Your task to perform on an android device: toggle airplane mode Image 0: 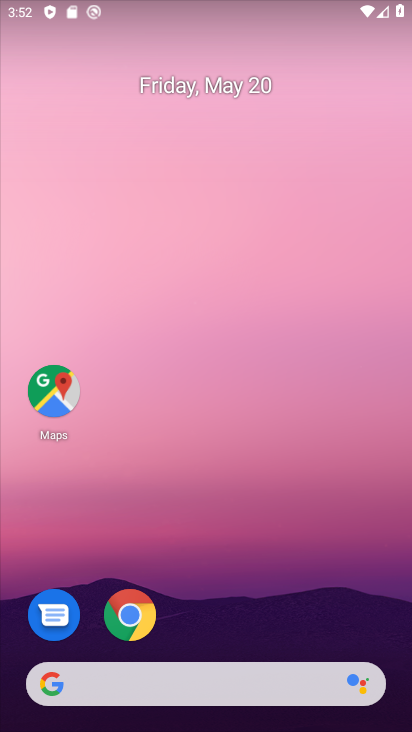
Step 0: drag from (267, 645) to (356, 132)
Your task to perform on an android device: toggle airplane mode Image 1: 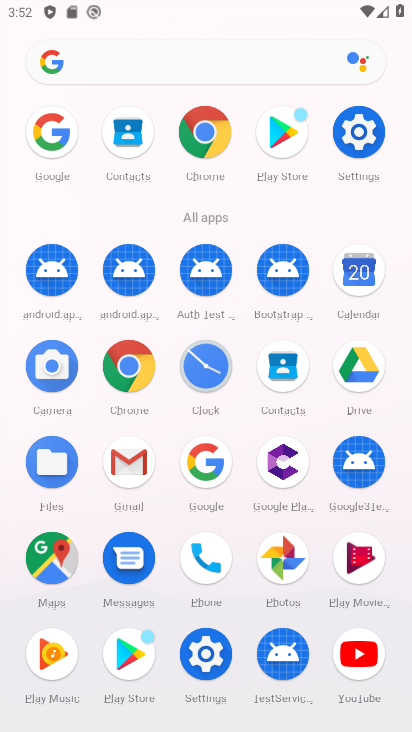
Step 1: click (367, 135)
Your task to perform on an android device: toggle airplane mode Image 2: 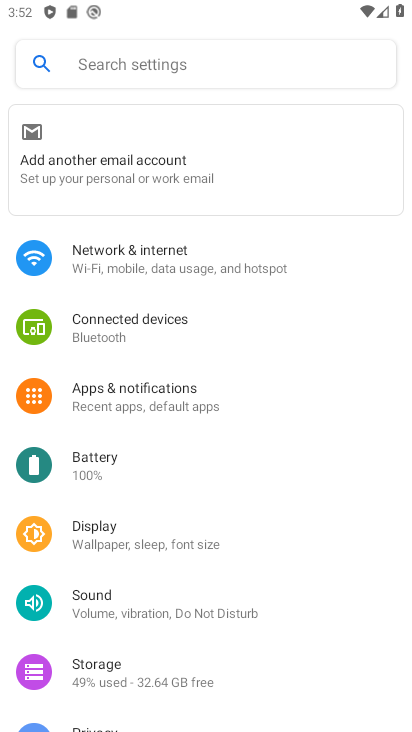
Step 2: click (273, 267)
Your task to perform on an android device: toggle airplane mode Image 3: 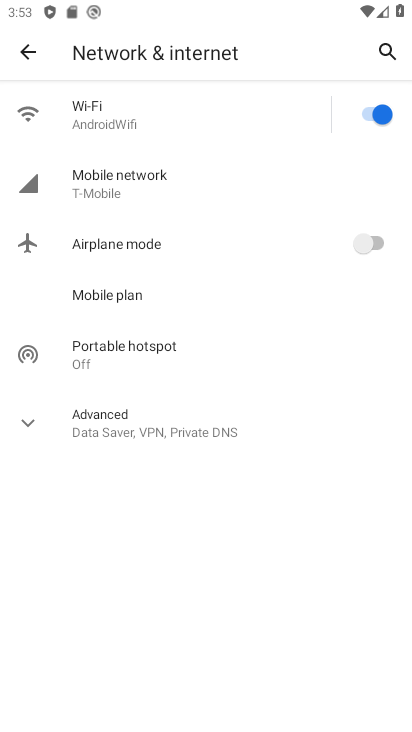
Step 3: click (283, 243)
Your task to perform on an android device: toggle airplane mode Image 4: 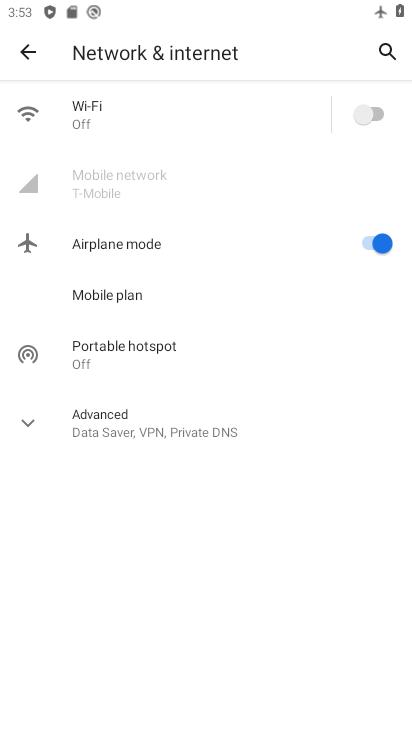
Step 4: task complete